Your task to perform on an android device: toggle notification dots Image 0: 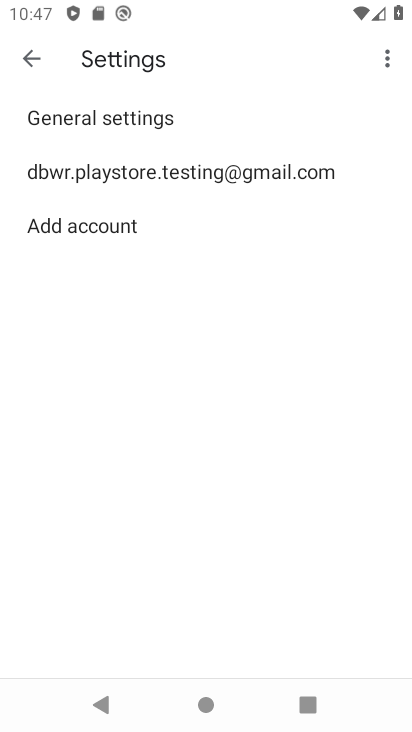
Step 0: press home button
Your task to perform on an android device: toggle notification dots Image 1: 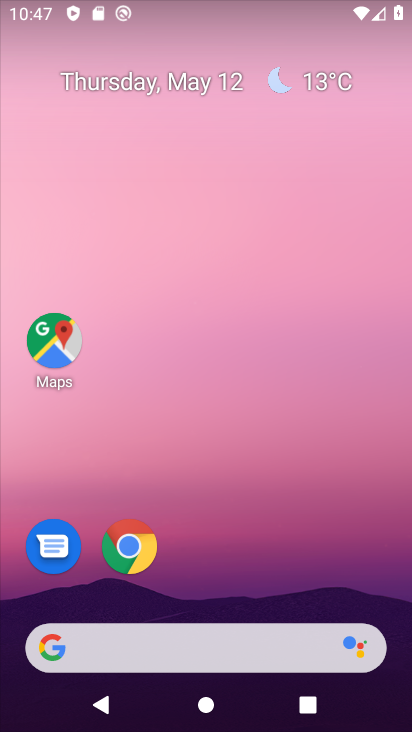
Step 1: drag from (229, 673) to (293, 256)
Your task to perform on an android device: toggle notification dots Image 2: 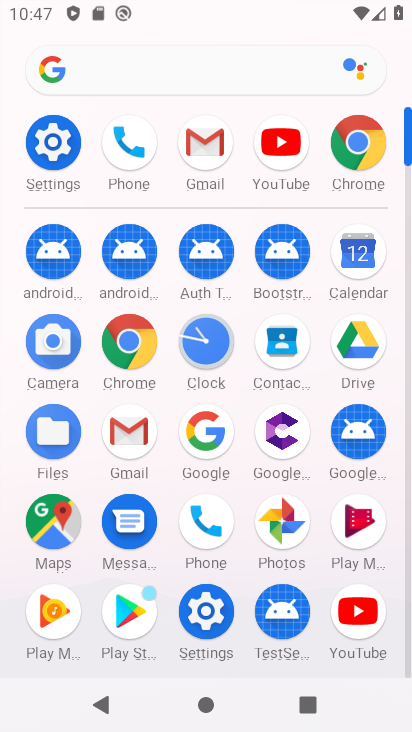
Step 2: click (39, 142)
Your task to perform on an android device: toggle notification dots Image 3: 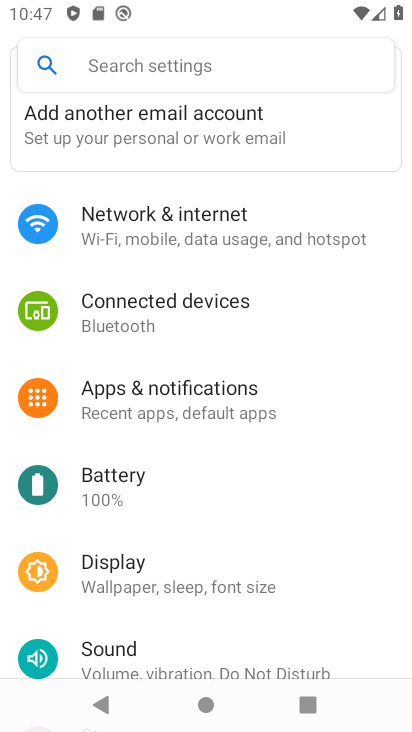
Step 3: click (150, 63)
Your task to perform on an android device: toggle notification dots Image 4: 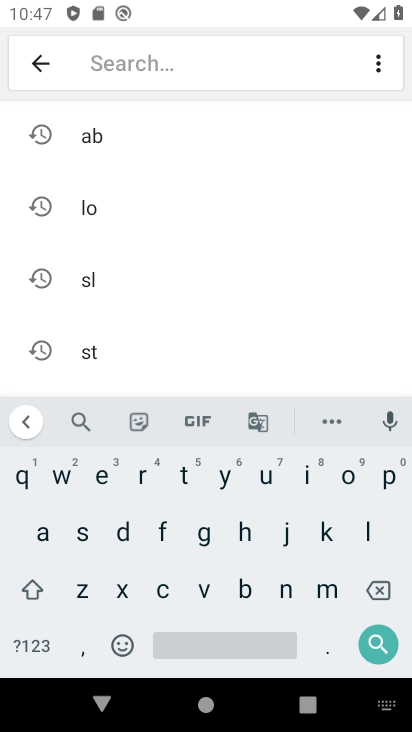
Step 4: click (118, 553)
Your task to perform on an android device: toggle notification dots Image 5: 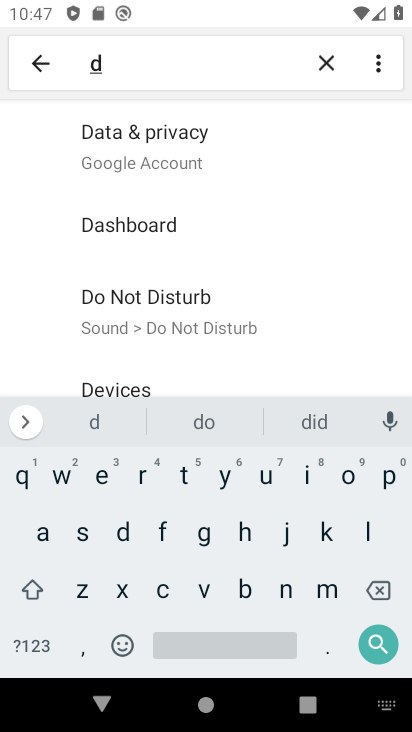
Step 5: click (345, 474)
Your task to perform on an android device: toggle notification dots Image 6: 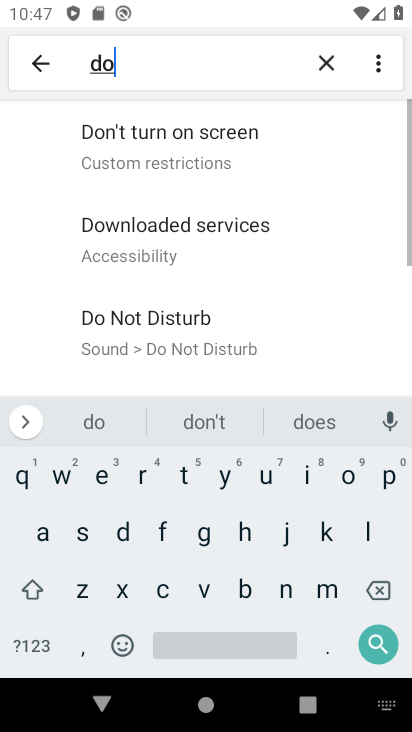
Step 6: click (176, 473)
Your task to perform on an android device: toggle notification dots Image 7: 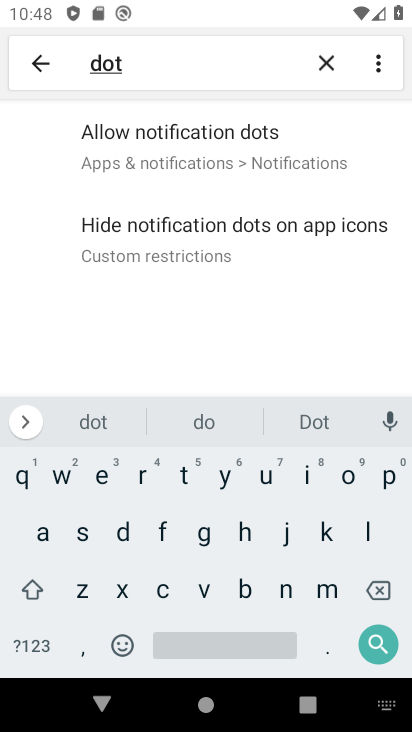
Step 7: click (249, 97)
Your task to perform on an android device: toggle notification dots Image 8: 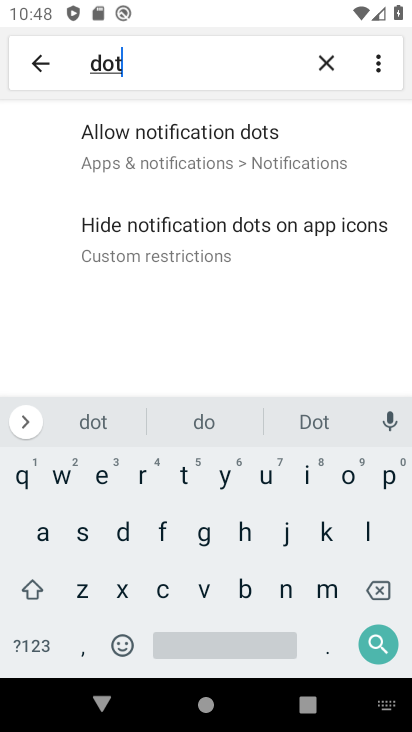
Step 8: click (229, 125)
Your task to perform on an android device: toggle notification dots Image 9: 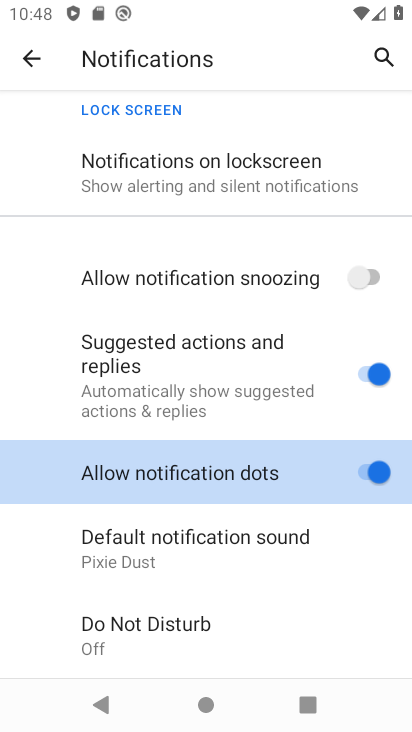
Step 9: task complete